Your task to perform on an android device: What is the news today? Image 0: 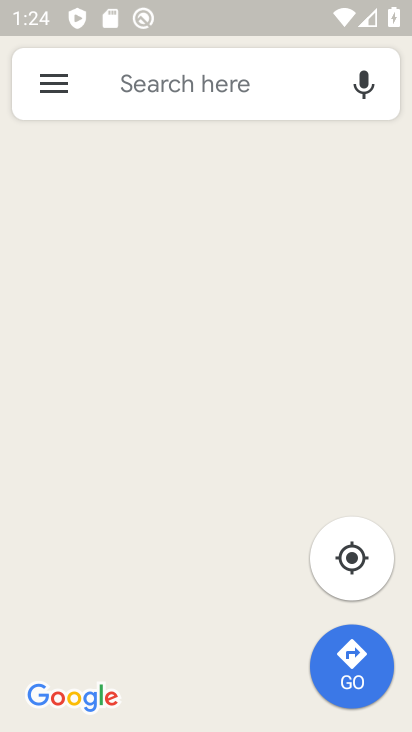
Step 0: press home button
Your task to perform on an android device: What is the news today? Image 1: 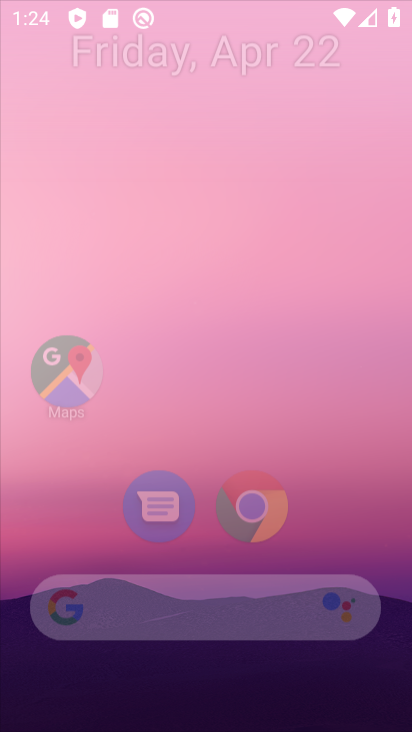
Step 1: click (278, 152)
Your task to perform on an android device: What is the news today? Image 2: 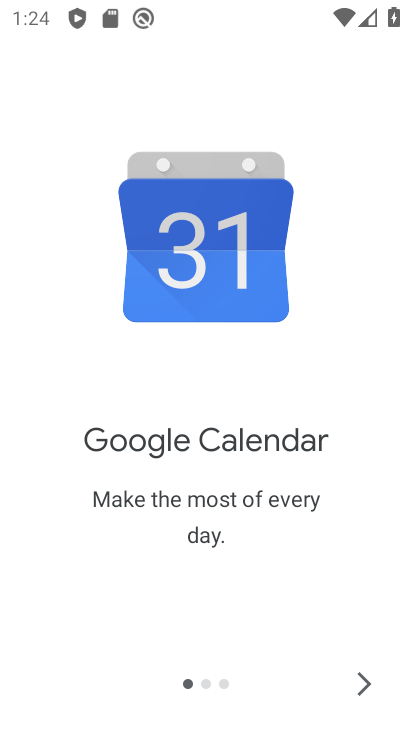
Step 2: press home button
Your task to perform on an android device: What is the news today? Image 3: 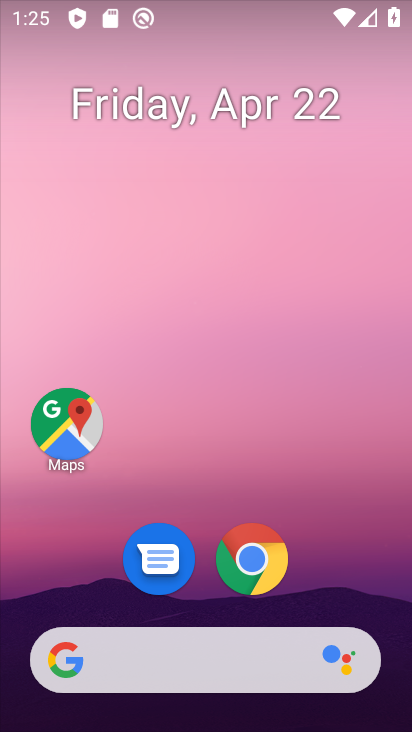
Step 3: drag from (337, 562) to (193, 124)
Your task to perform on an android device: What is the news today? Image 4: 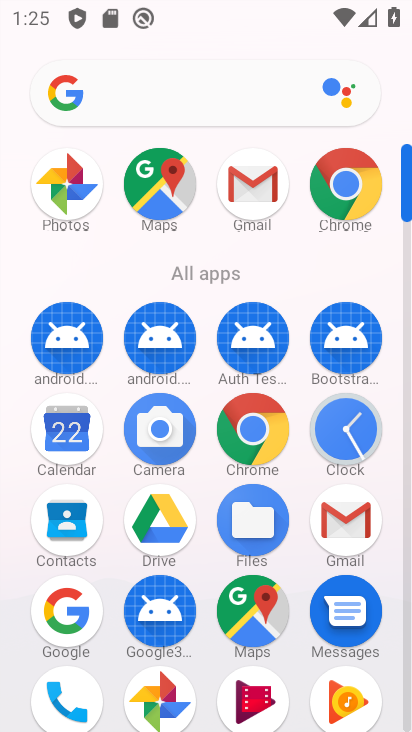
Step 4: click (348, 179)
Your task to perform on an android device: What is the news today? Image 5: 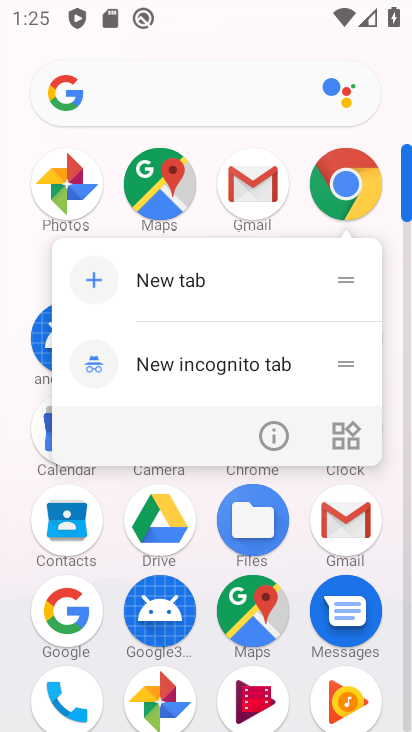
Step 5: click (350, 185)
Your task to perform on an android device: What is the news today? Image 6: 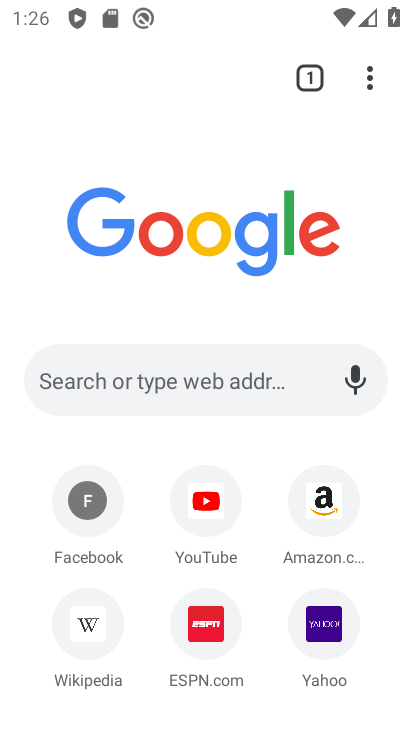
Step 6: click (123, 382)
Your task to perform on an android device: What is the news today? Image 7: 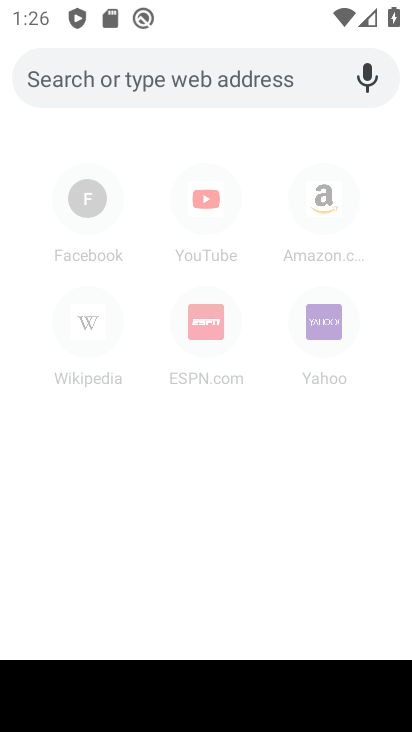
Step 7: click (174, 78)
Your task to perform on an android device: What is the news today? Image 8: 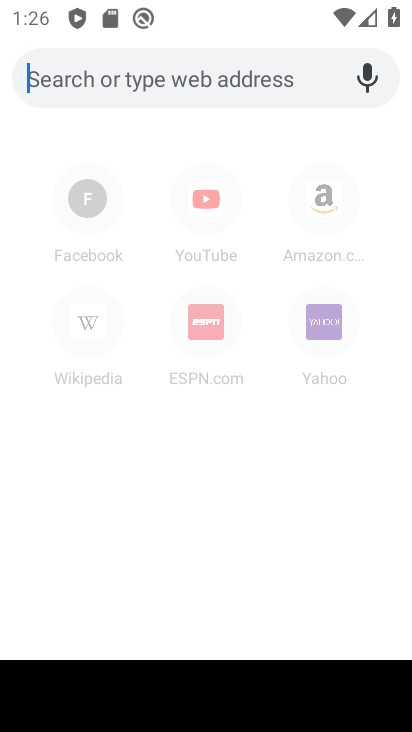
Step 8: type "What is the news today?"
Your task to perform on an android device: What is the news today? Image 9: 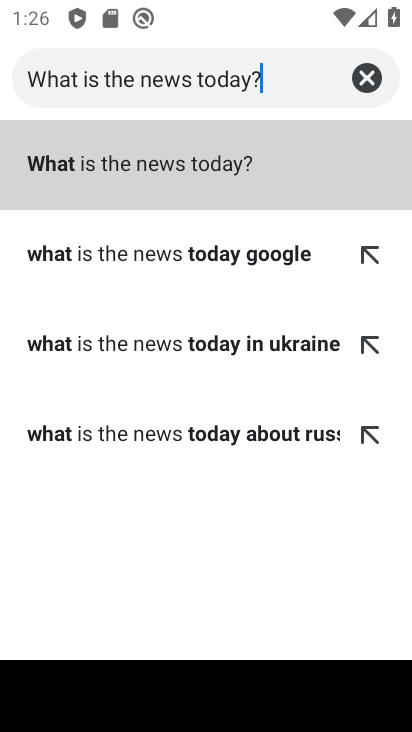
Step 9: type ""
Your task to perform on an android device: What is the news today? Image 10: 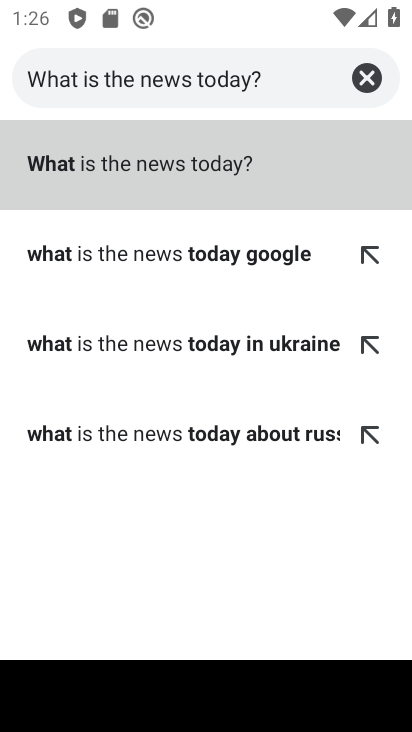
Step 10: click (228, 172)
Your task to perform on an android device: What is the news today? Image 11: 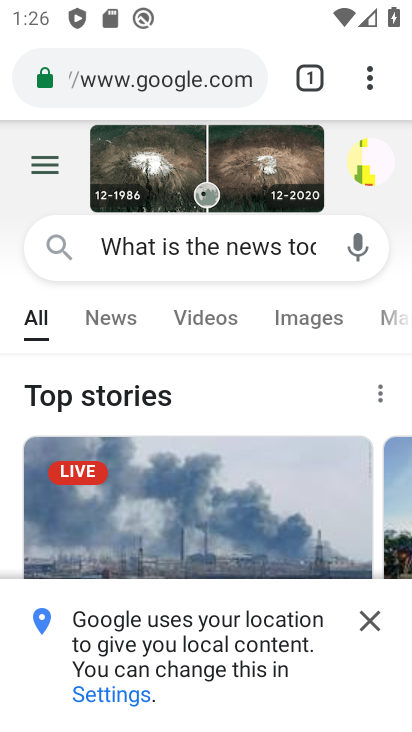
Step 11: task complete